Your task to perform on an android device: What's on my calendar tomorrow? Image 0: 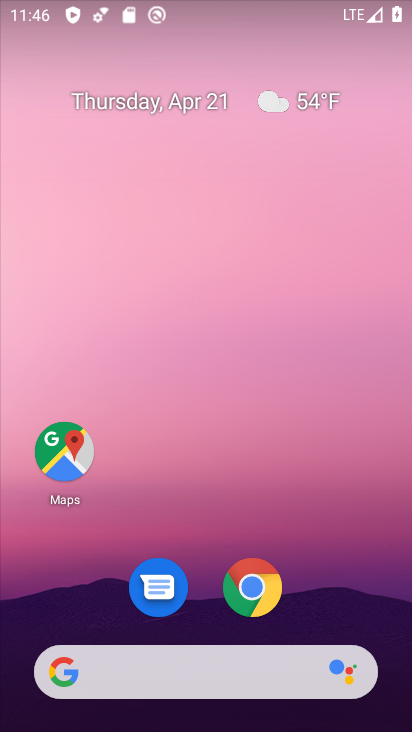
Step 0: drag from (200, 497) to (268, 53)
Your task to perform on an android device: What's on my calendar tomorrow? Image 1: 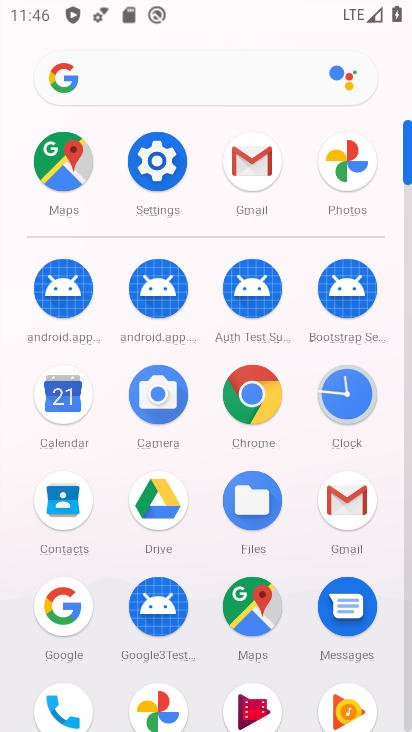
Step 1: click (50, 391)
Your task to perform on an android device: What's on my calendar tomorrow? Image 2: 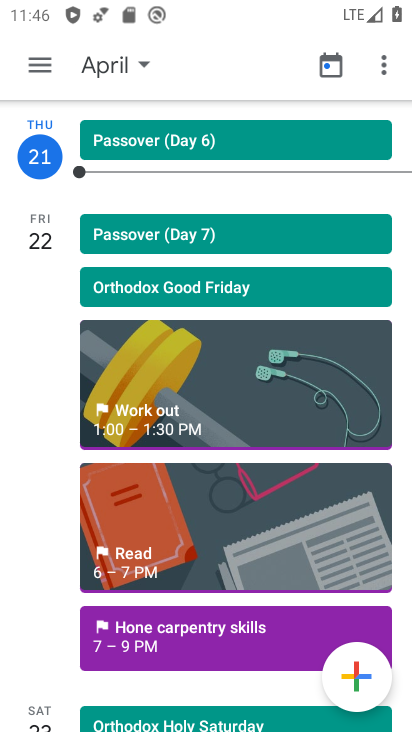
Step 2: task complete